Your task to perform on an android device: What's the weather today? Image 0: 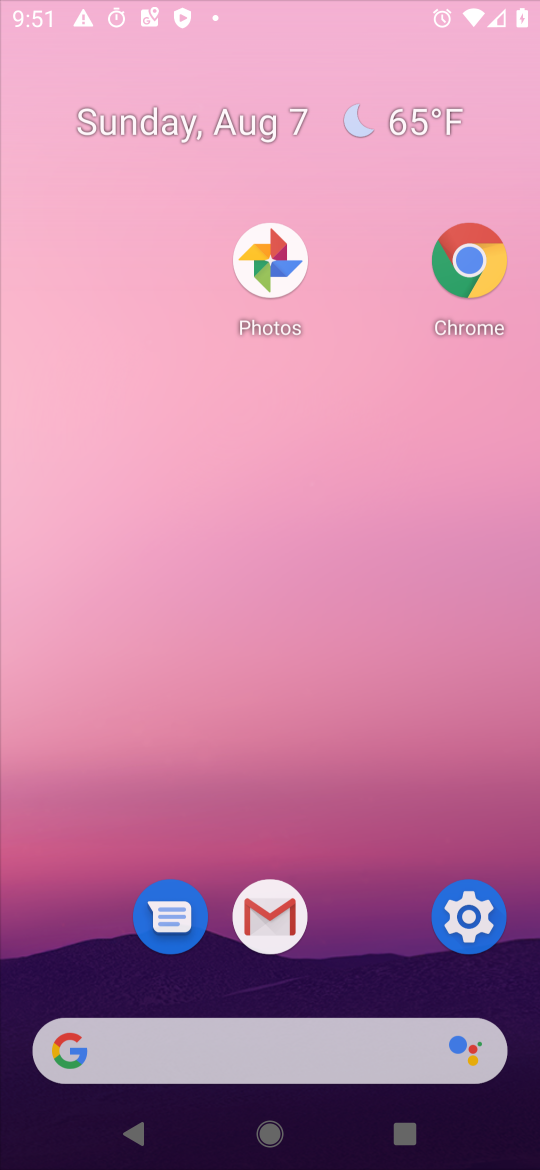
Step 0: press home button
Your task to perform on an android device: What's the weather today? Image 1: 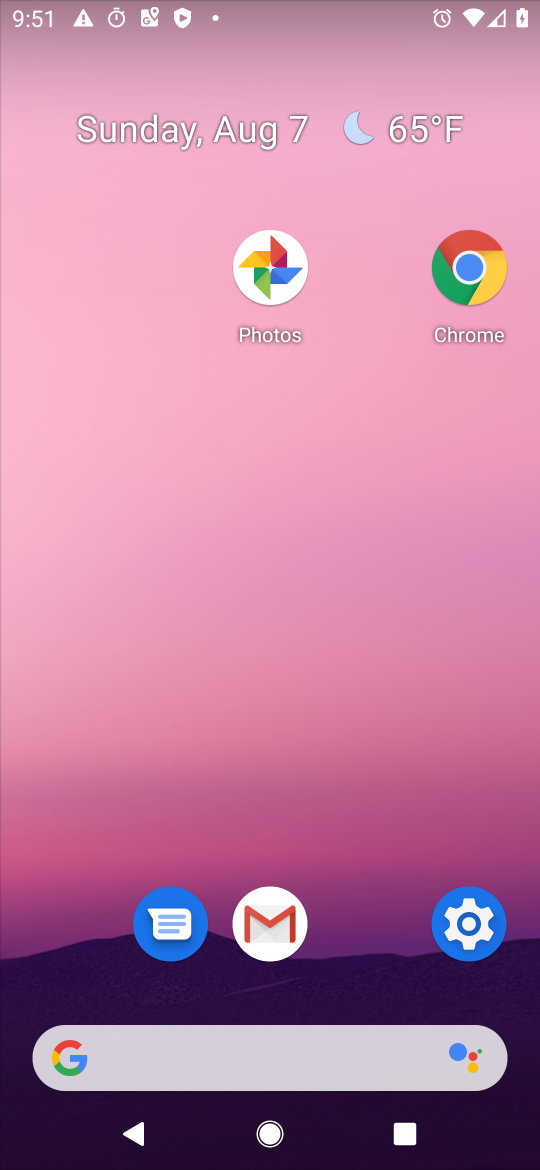
Step 1: drag from (325, 1062) to (403, 246)
Your task to perform on an android device: What's the weather today? Image 2: 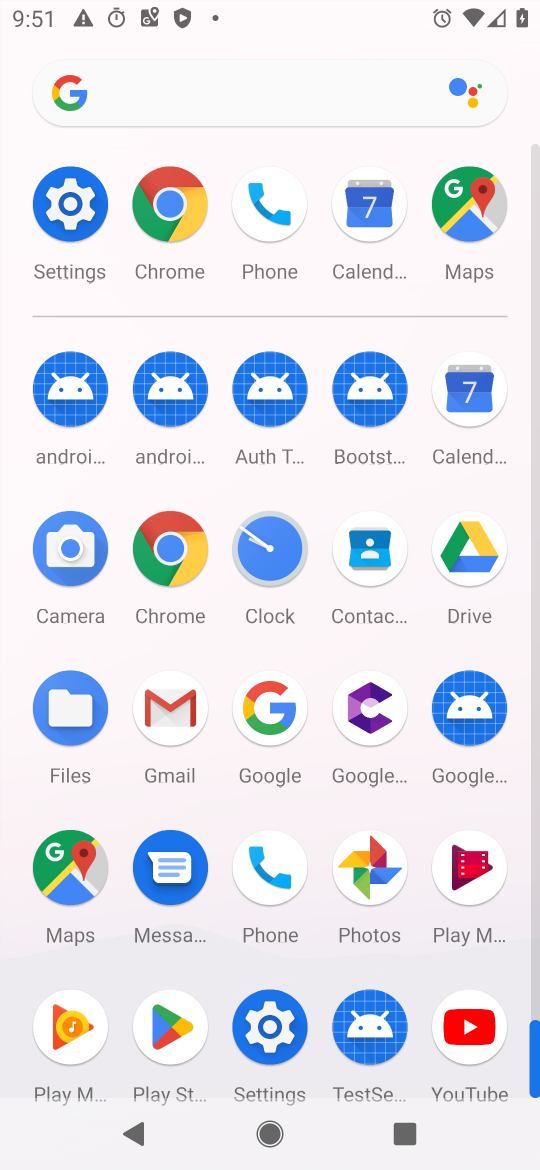
Step 2: click (120, 103)
Your task to perform on an android device: What's the weather today? Image 3: 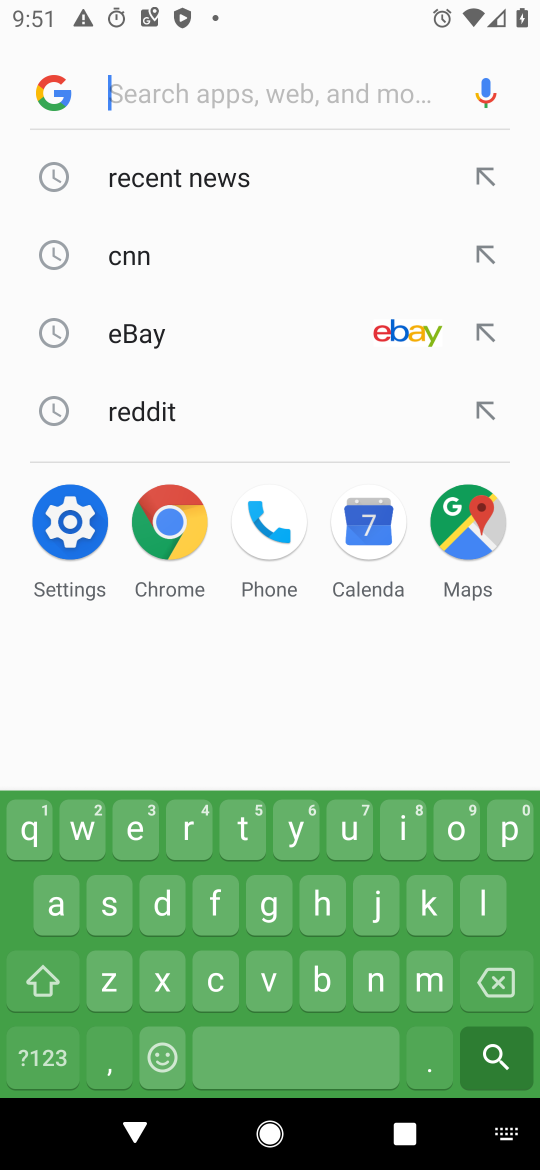
Step 3: click (75, 844)
Your task to perform on an android device: What's the weather today? Image 4: 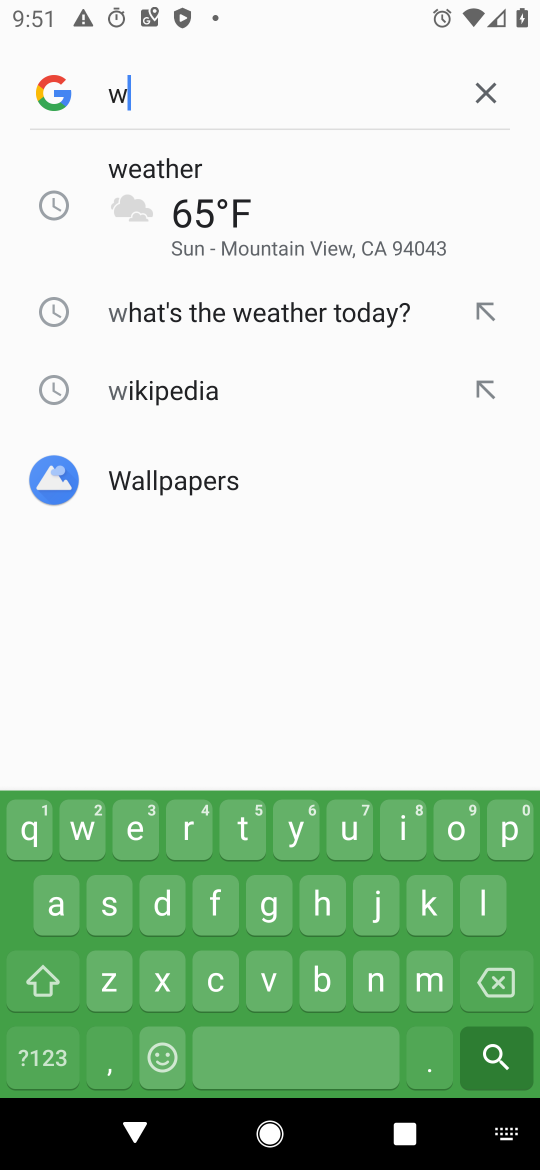
Step 4: click (206, 184)
Your task to perform on an android device: What's the weather today? Image 5: 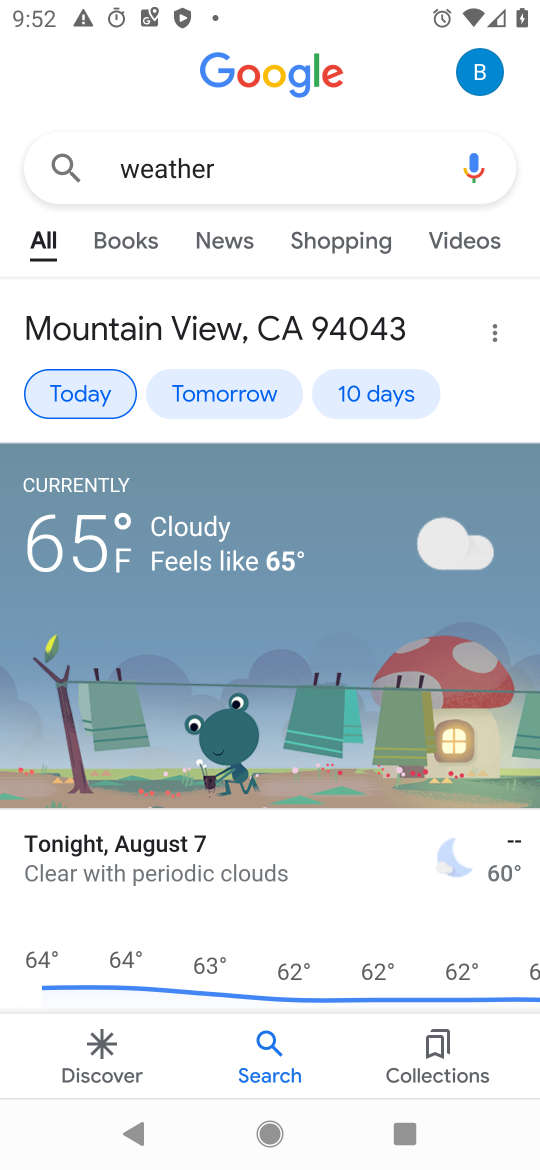
Step 5: task complete